Your task to perform on an android device: Go to privacy settings Image 0: 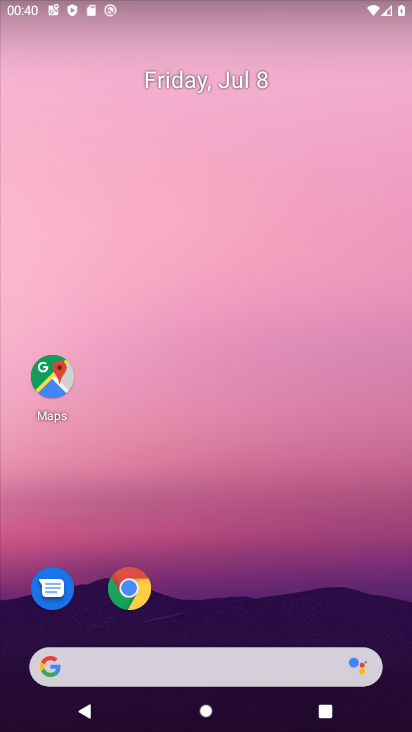
Step 0: drag from (192, 581) to (230, 74)
Your task to perform on an android device: Go to privacy settings Image 1: 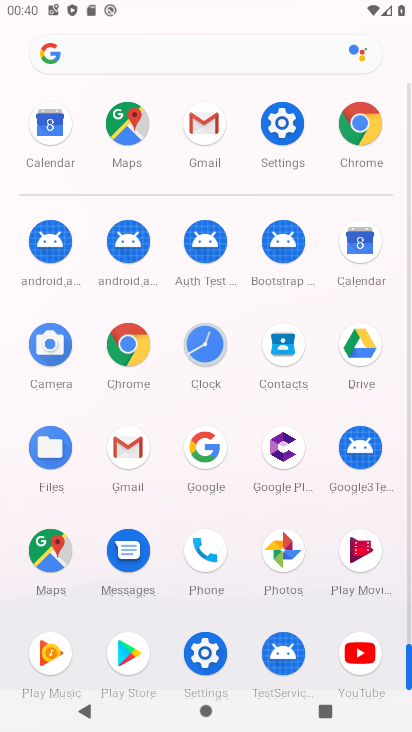
Step 1: click (282, 129)
Your task to perform on an android device: Go to privacy settings Image 2: 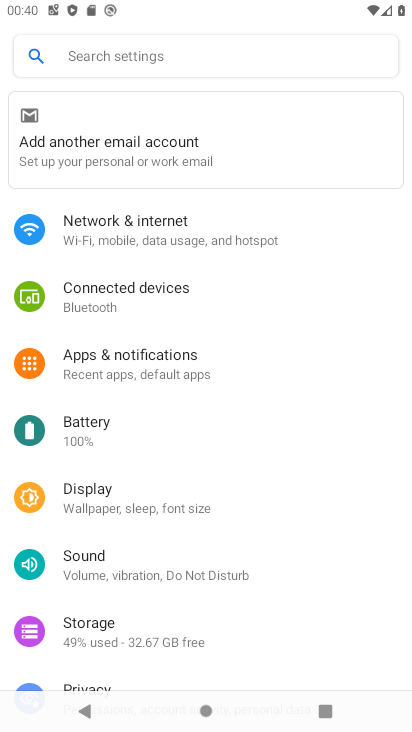
Step 2: drag from (138, 615) to (187, 214)
Your task to perform on an android device: Go to privacy settings Image 3: 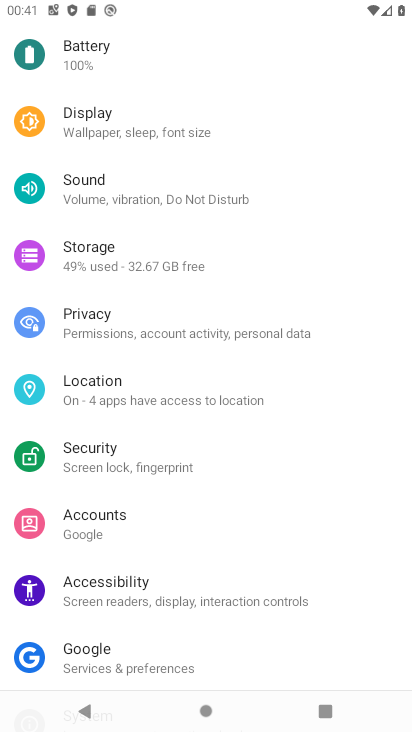
Step 3: click (176, 325)
Your task to perform on an android device: Go to privacy settings Image 4: 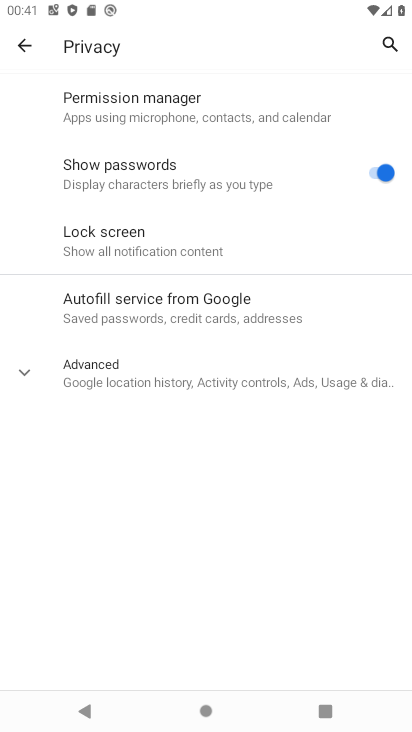
Step 4: task complete